Your task to perform on an android device: open a new tab in the chrome app Image 0: 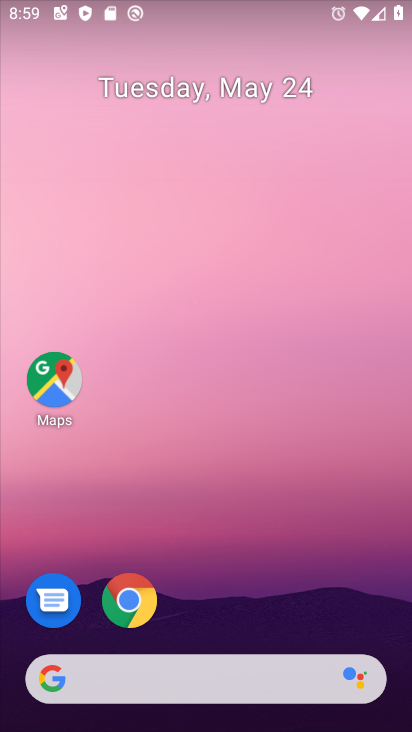
Step 0: click (132, 598)
Your task to perform on an android device: open a new tab in the chrome app Image 1: 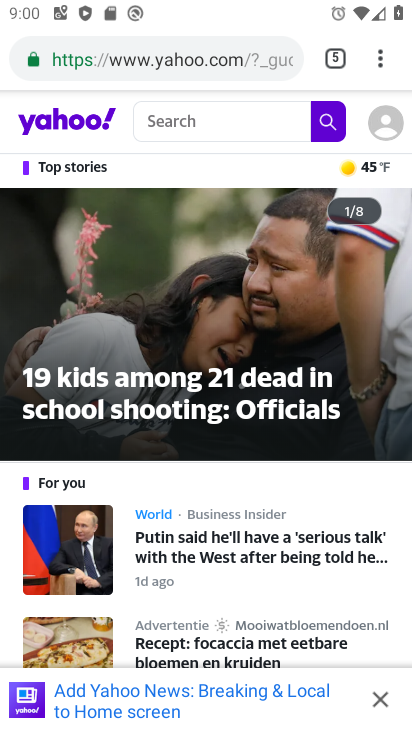
Step 1: click (380, 65)
Your task to perform on an android device: open a new tab in the chrome app Image 2: 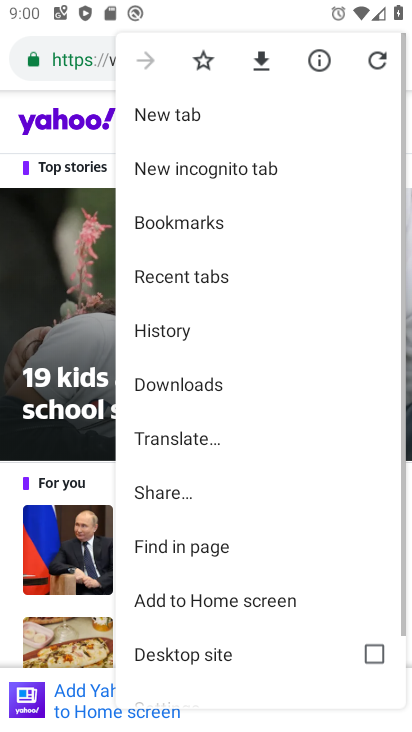
Step 2: click (171, 107)
Your task to perform on an android device: open a new tab in the chrome app Image 3: 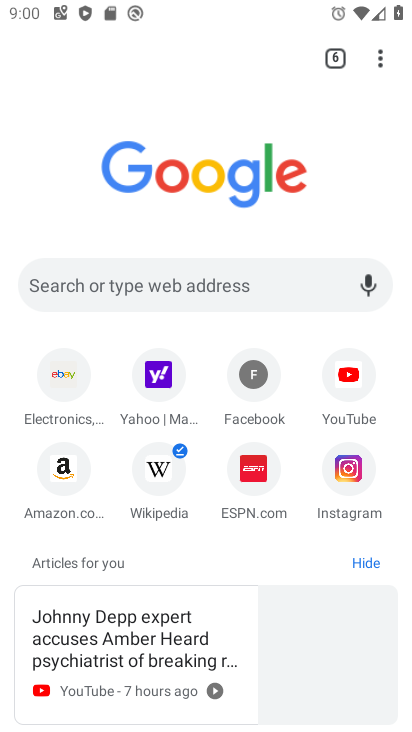
Step 3: task complete